Your task to perform on an android device: Go to battery settings Image 0: 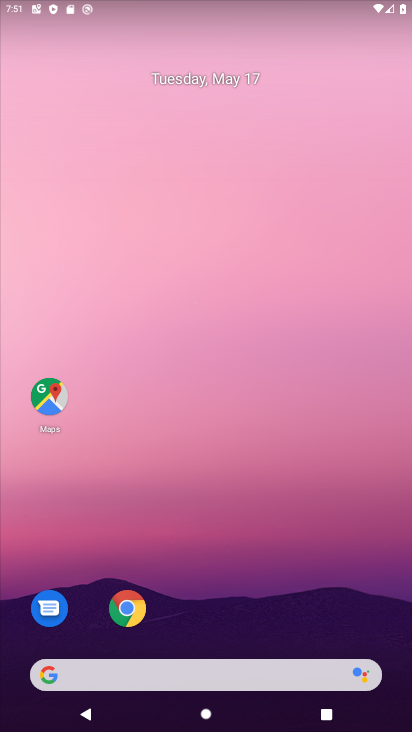
Step 0: drag from (264, 629) to (339, 8)
Your task to perform on an android device: Go to battery settings Image 1: 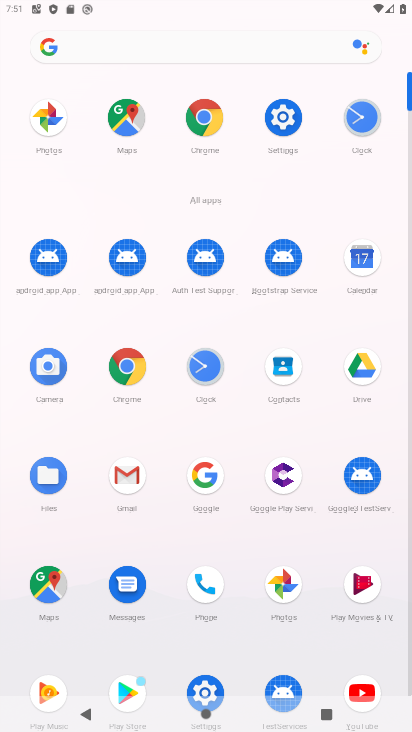
Step 1: click (284, 178)
Your task to perform on an android device: Go to battery settings Image 2: 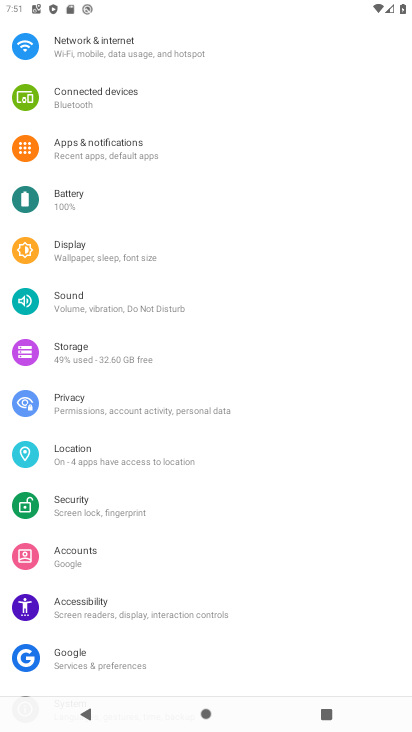
Step 2: click (68, 190)
Your task to perform on an android device: Go to battery settings Image 3: 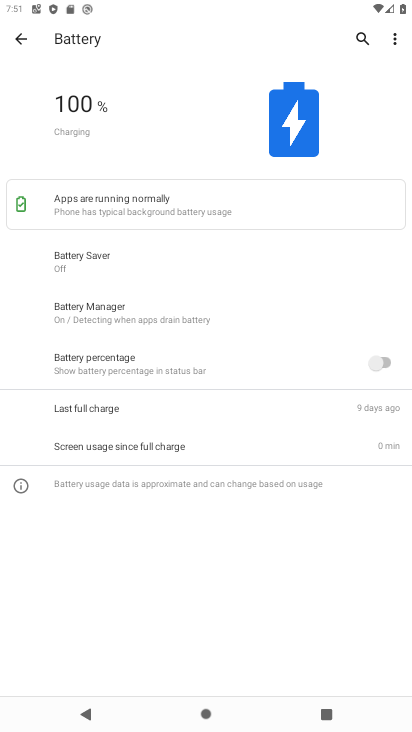
Step 3: task complete